Your task to perform on an android device: change text size in settings app Image 0: 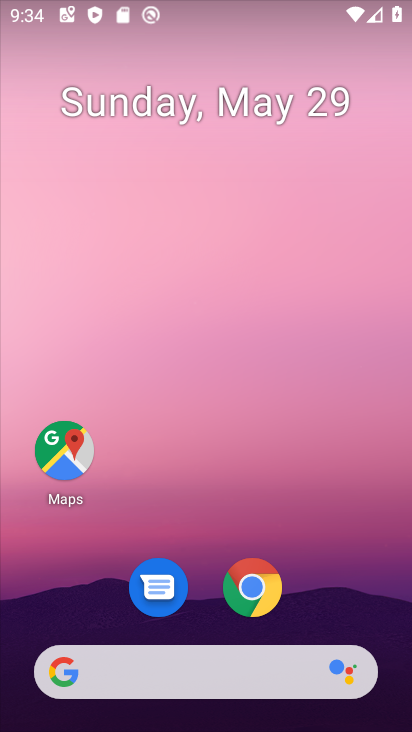
Step 0: drag from (198, 468) to (249, 96)
Your task to perform on an android device: change text size in settings app Image 1: 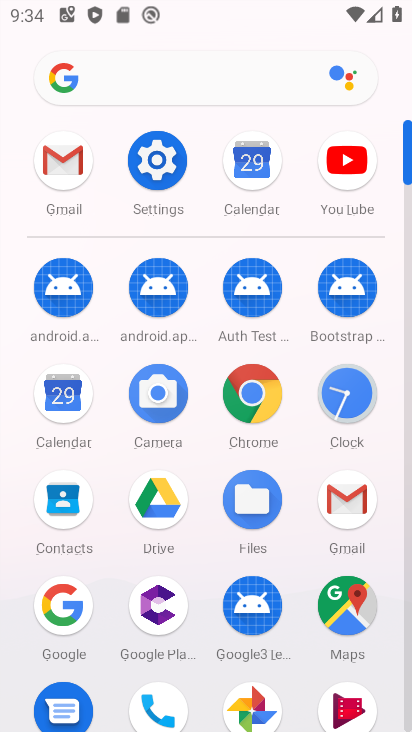
Step 1: click (173, 157)
Your task to perform on an android device: change text size in settings app Image 2: 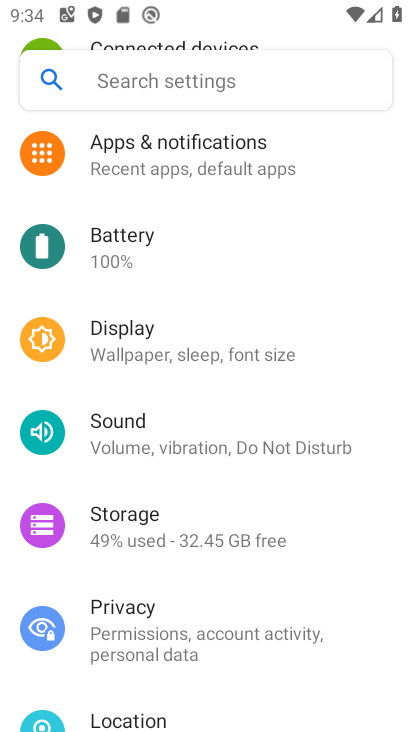
Step 2: drag from (197, 228) to (134, 637)
Your task to perform on an android device: change text size in settings app Image 3: 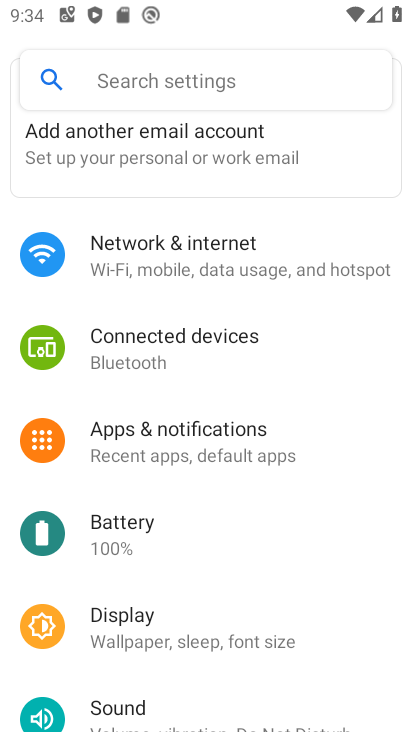
Step 3: click (151, 81)
Your task to perform on an android device: change text size in settings app Image 4: 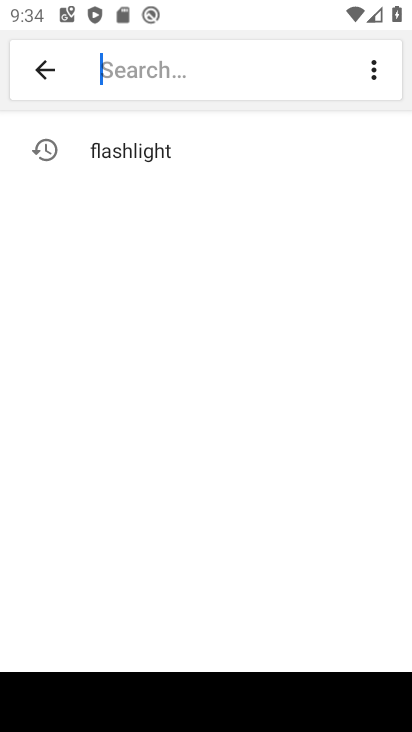
Step 4: type "text size"
Your task to perform on an android device: change text size in settings app Image 5: 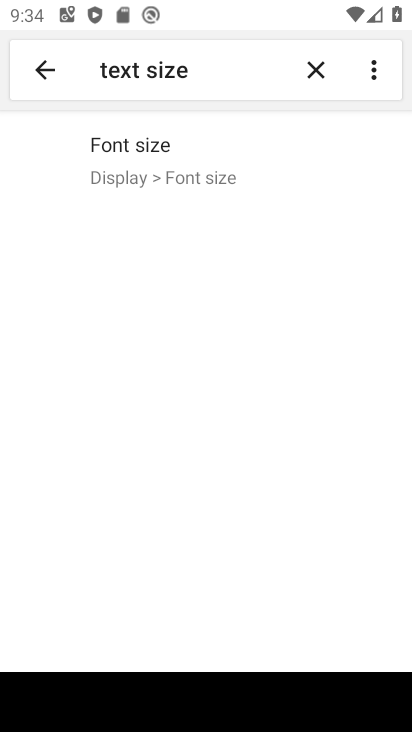
Step 5: click (136, 148)
Your task to perform on an android device: change text size in settings app Image 6: 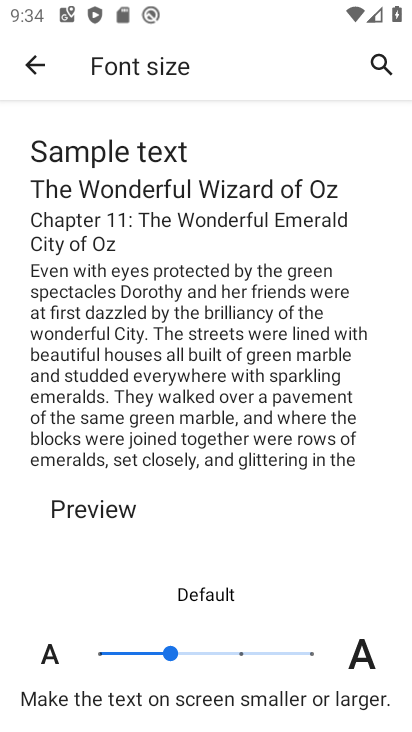
Step 6: task complete